Your task to perform on an android device: empty trash in the gmail app Image 0: 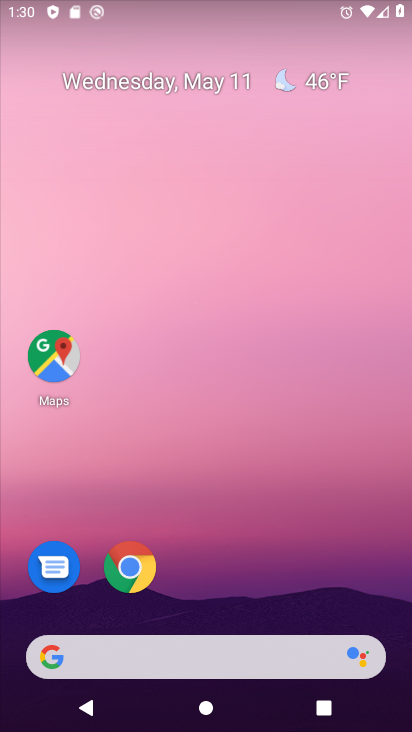
Step 0: drag from (182, 624) to (140, 25)
Your task to perform on an android device: empty trash in the gmail app Image 1: 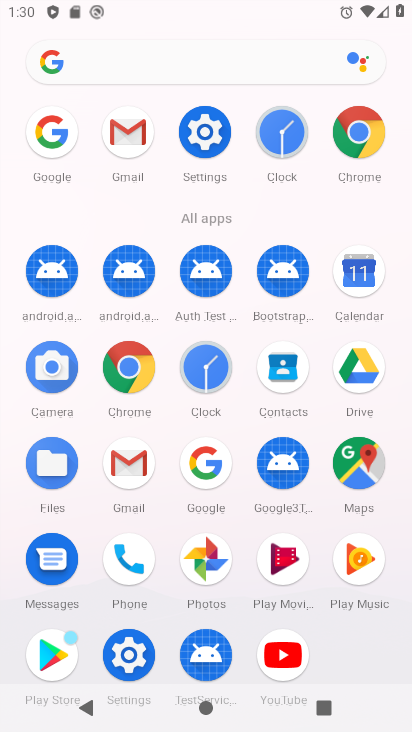
Step 1: click (120, 448)
Your task to perform on an android device: empty trash in the gmail app Image 2: 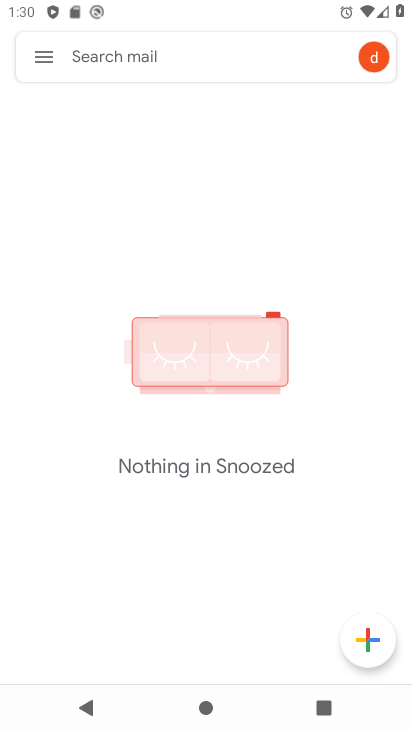
Step 2: click (35, 53)
Your task to perform on an android device: empty trash in the gmail app Image 3: 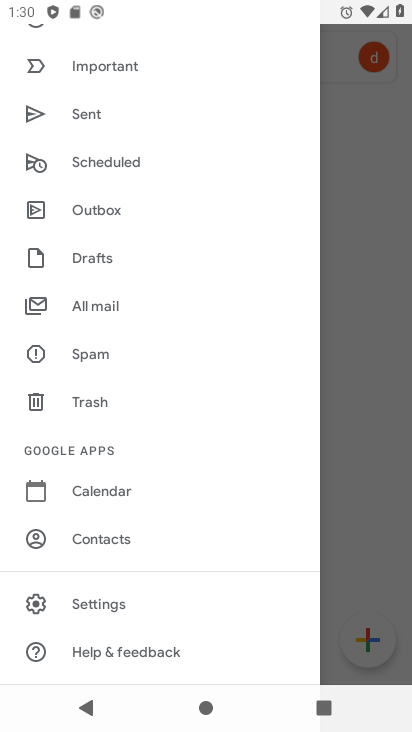
Step 3: click (120, 402)
Your task to perform on an android device: empty trash in the gmail app Image 4: 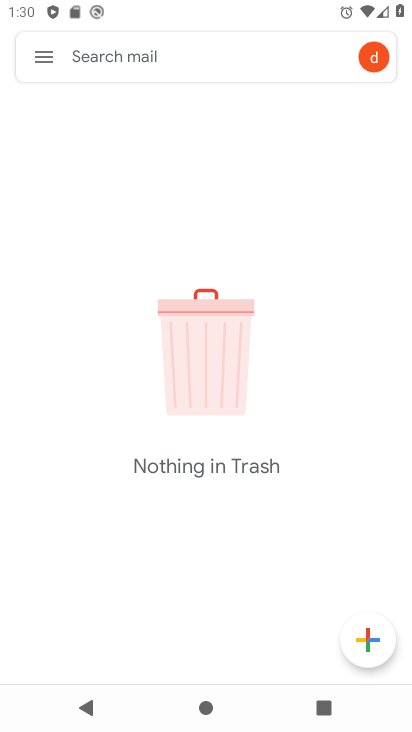
Step 4: task complete